Your task to perform on an android device: toggle javascript in the chrome app Image 0: 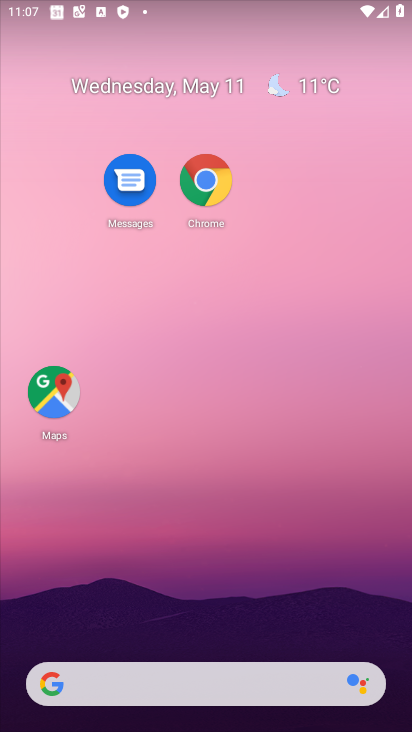
Step 0: drag from (308, 588) to (337, 264)
Your task to perform on an android device: toggle javascript in the chrome app Image 1: 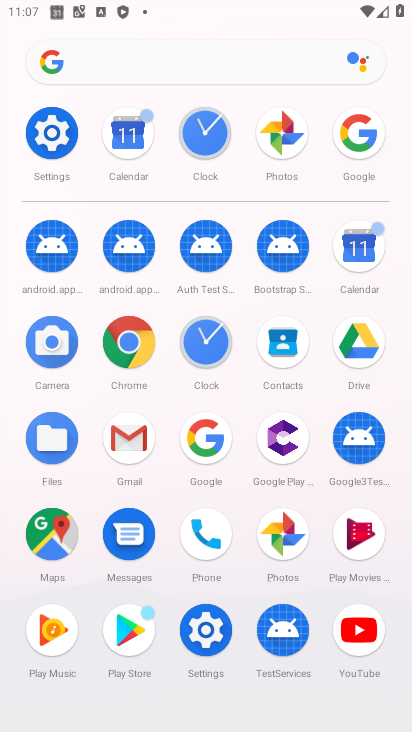
Step 1: click (127, 367)
Your task to perform on an android device: toggle javascript in the chrome app Image 2: 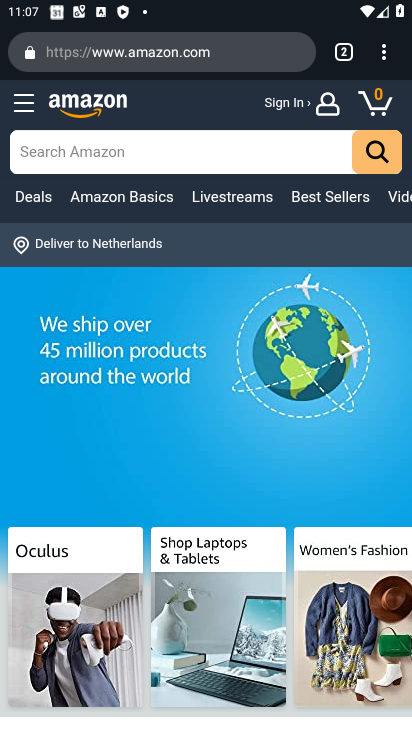
Step 2: click (378, 57)
Your task to perform on an android device: toggle javascript in the chrome app Image 3: 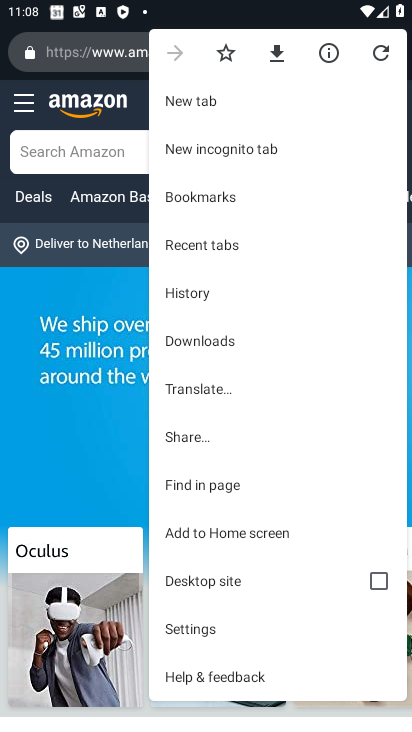
Step 3: click (212, 639)
Your task to perform on an android device: toggle javascript in the chrome app Image 4: 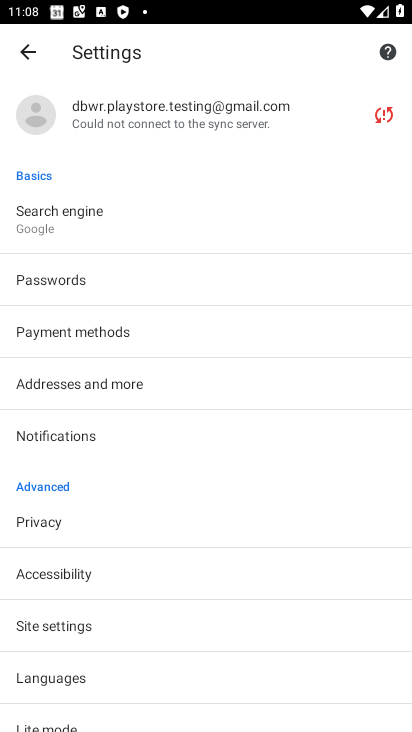
Step 4: click (144, 633)
Your task to perform on an android device: toggle javascript in the chrome app Image 5: 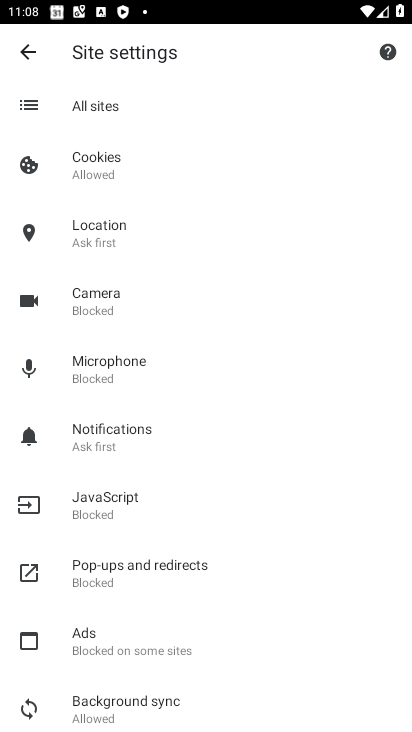
Step 5: click (154, 503)
Your task to perform on an android device: toggle javascript in the chrome app Image 6: 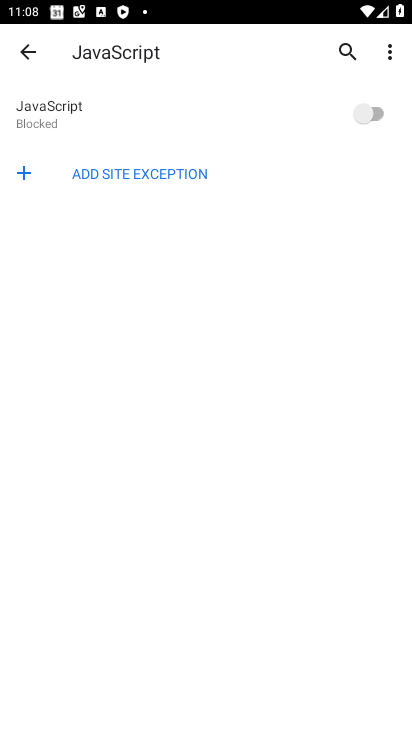
Step 6: click (367, 119)
Your task to perform on an android device: toggle javascript in the chrome app Image 7: 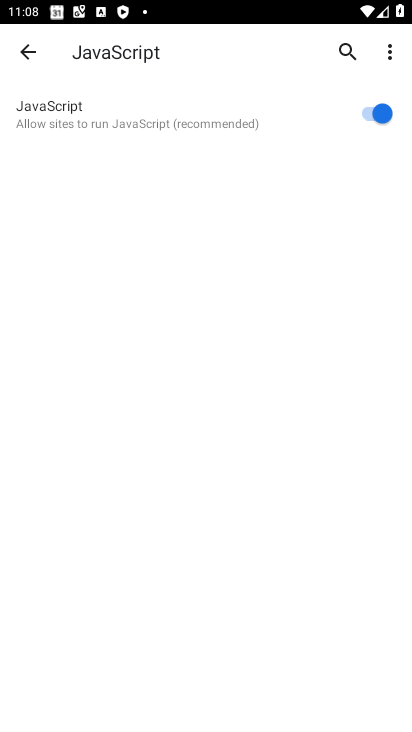
Step 7: task complete